Your task to perform on an android device: change text size in settings app Image 0: 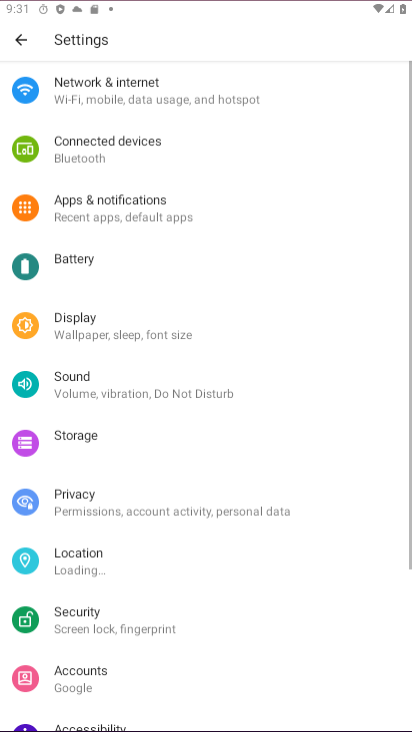
Step 0: drag from (247, 666) to (288, 191)
Your task to perform on an android device: change text size in settings app Image 1: 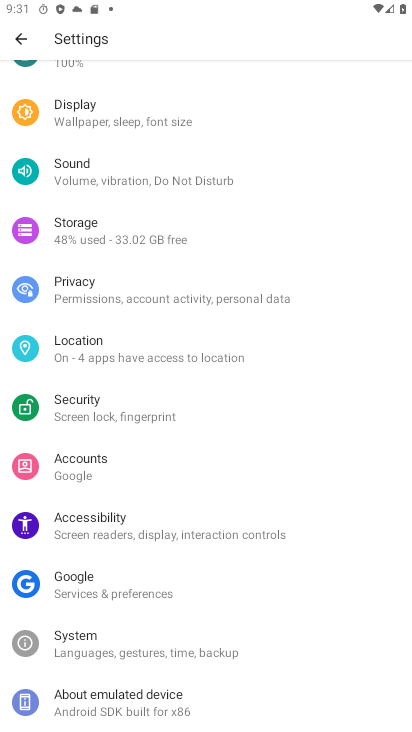
Step 1: click (89, 130)
Your task to perform on an android device: change text size in settings app Image 2: 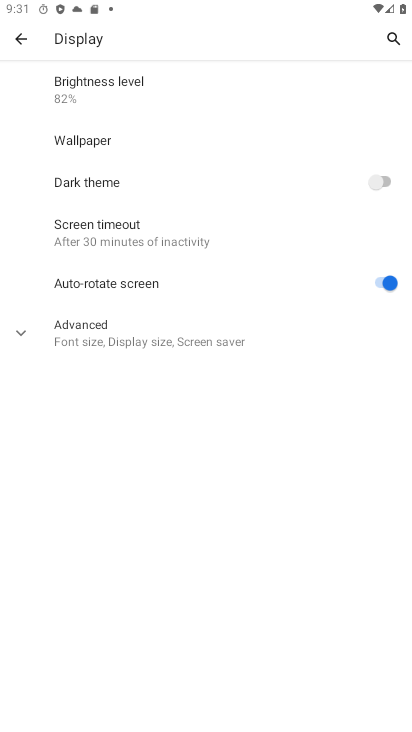
Step 2: click (92, 239)
Your task to perform on an android device: change text size in settings app Image 3: 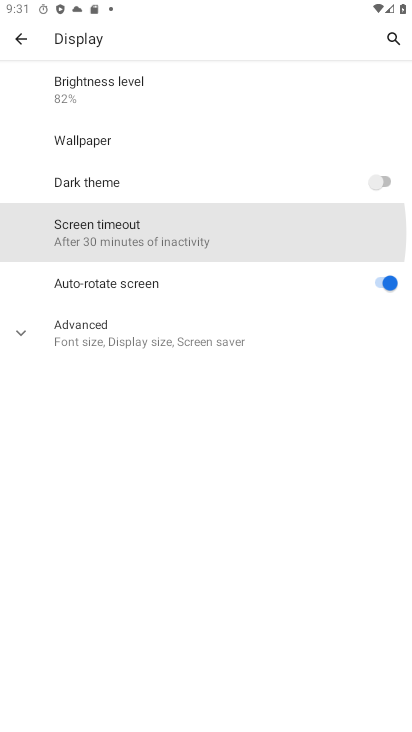
Step 3: click (92, 239)
Your task to perform on an android device: change text size in settings app Image 4: 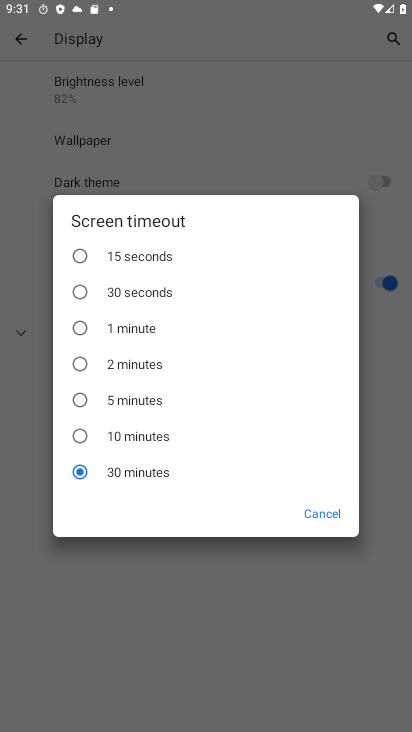
Step 4: click (307, 504)
Your task to perform on an android device: change text size in settings app Image 5: 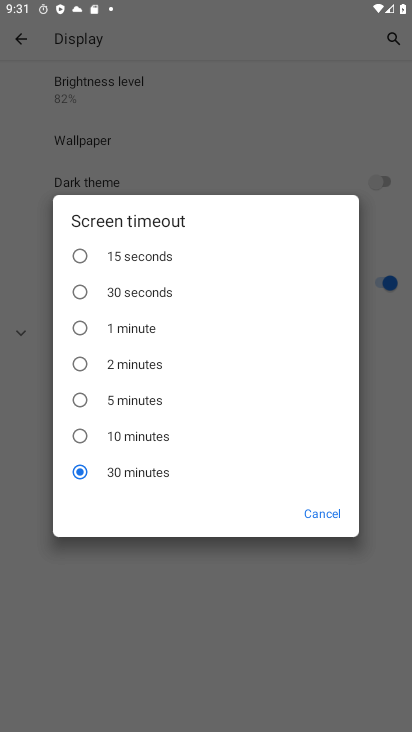
Step 5: click (327, 485)
Your task to perform on an android device: change text size in settings app Image 6: 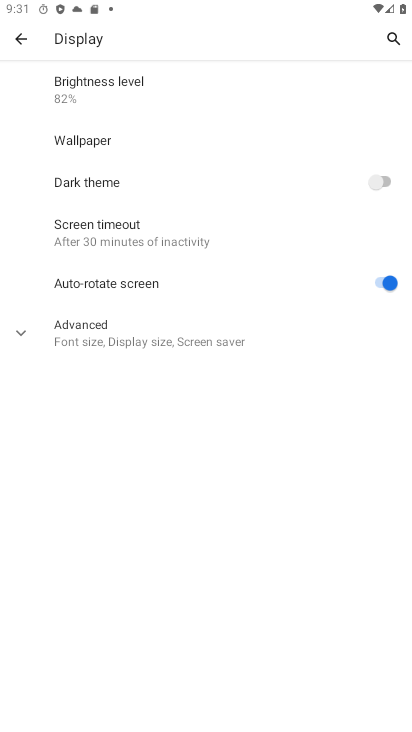
Step 6: click (103, 327)
Your task to perform on an android device: change text size in settings app Image 7: 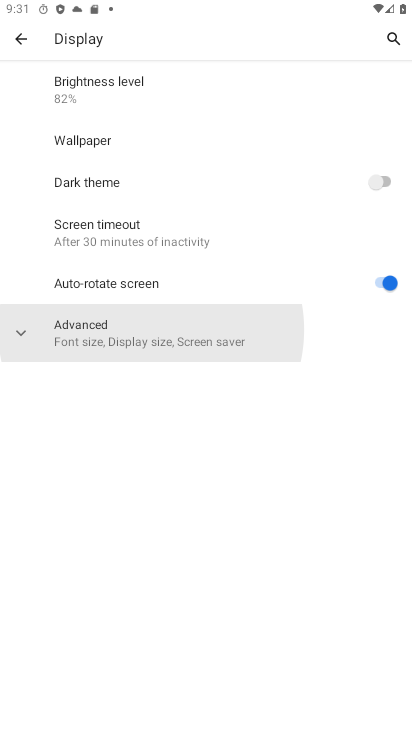
Step 7: click (103, 333)
Your task to perform on an android device: change text size in settings app Image 8: 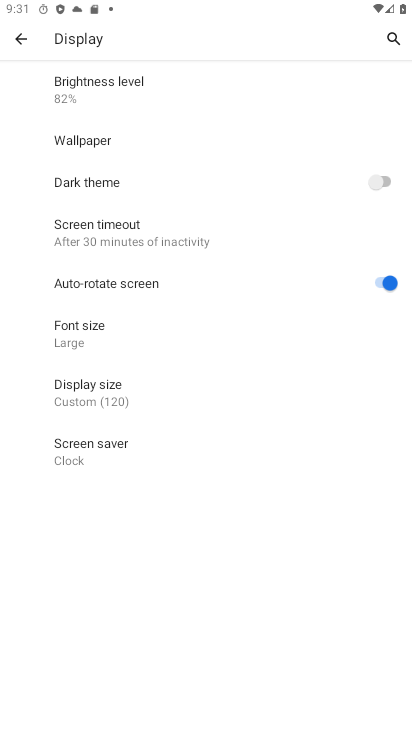
Step 8: click (66, 333)
Your task to perform on an android device: change text size in settings app Image 9: 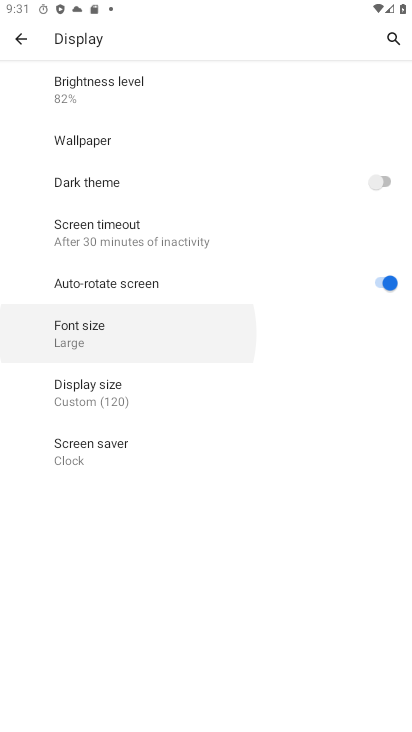
Step 9: click (67, 335)
Your task to perform on an android device: change text size in settings app Image 10: 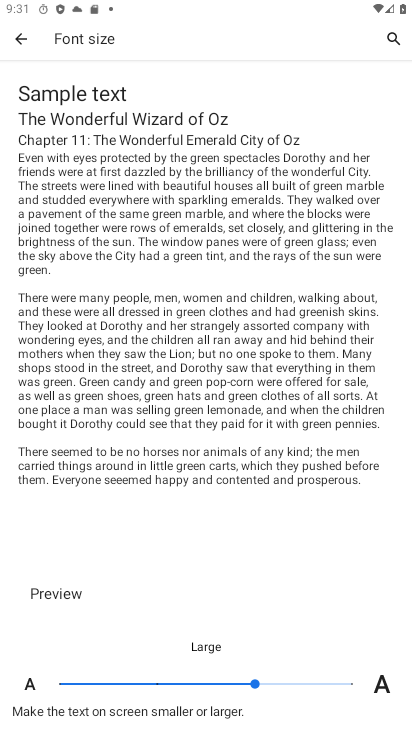
Step 10: click (344, 676)
Your task to perform on an android device: change text size in settings app Image 11: 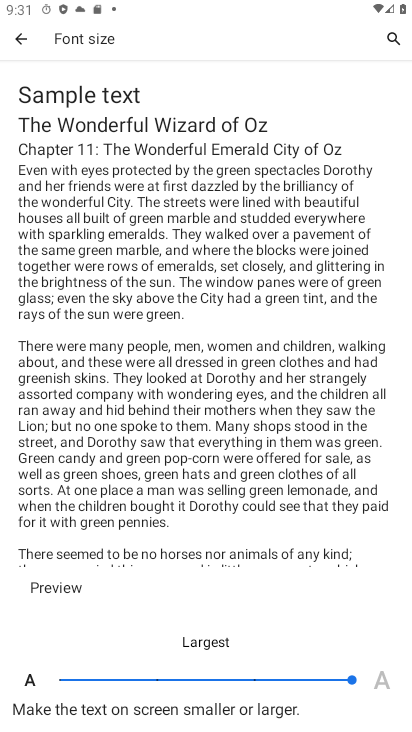
Step 11: task complete